Your task to perform on an android device: What's the weather going to be this weekend? Image 0: 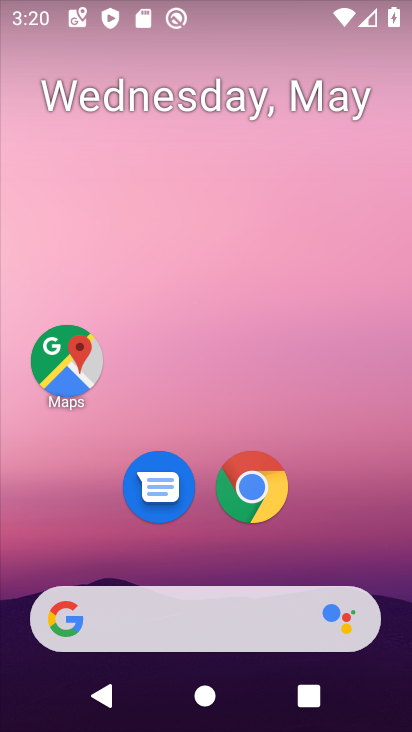
Step 0: drag from (327, 504) to (258, 40)
Your task to perform on an android device: What's the weather going to be this weekend? Image 1: 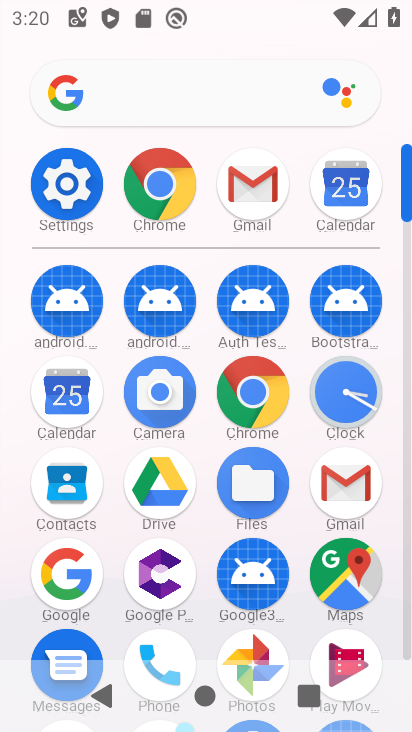
Step 1: drag from (6, 607) to (19, 297)
Your task to perform on an android device: What's the weather going to be this weekend? Image 2: 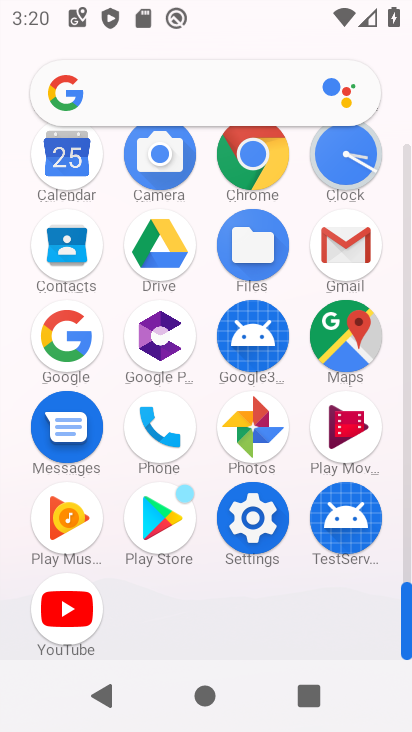
Step 2: drag from (15, 565) to (20, 289)
Your task to perform on an android device: What's the weather going to be this weekend? Image 3: 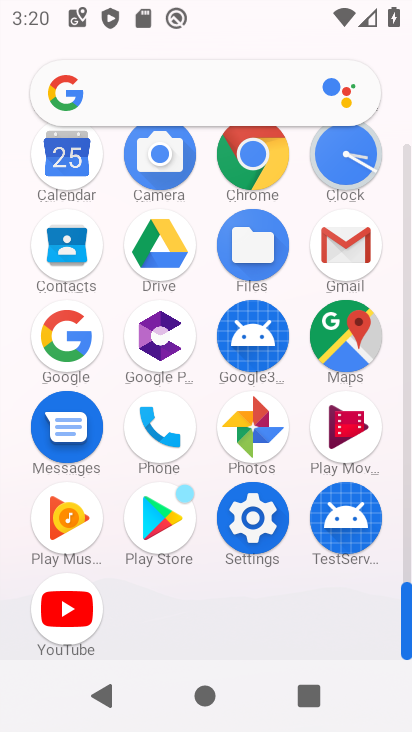
Step 3: drag from (18, 216) to (23, 514)
Your task to perform on an android device: What's the weather going to be this weekend? Image 4: 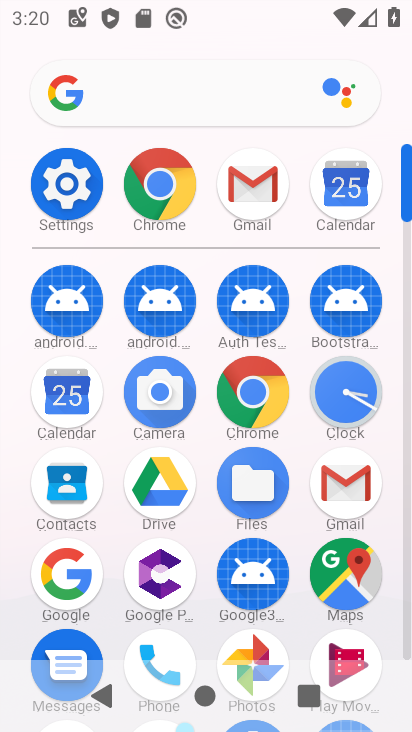
Step 4: drag from (12, 489) to (13, 211)
Your task to perform on an android device: What's the weather going to be this weekend? Image 5: 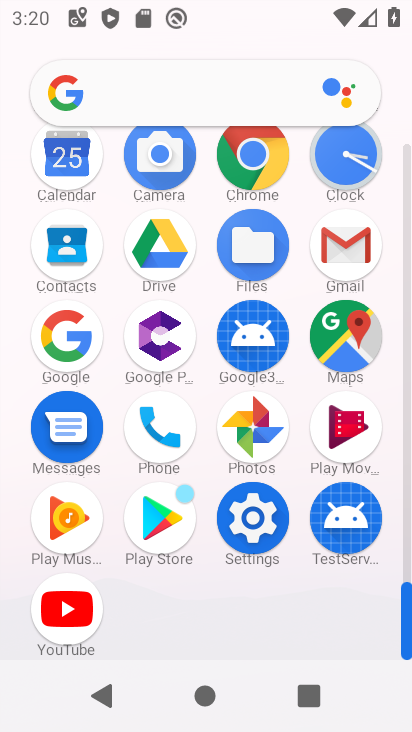
Step 5: click (250, 154)
Your task to perform on an android device: What's the weather going to be this weekend? Image 6: 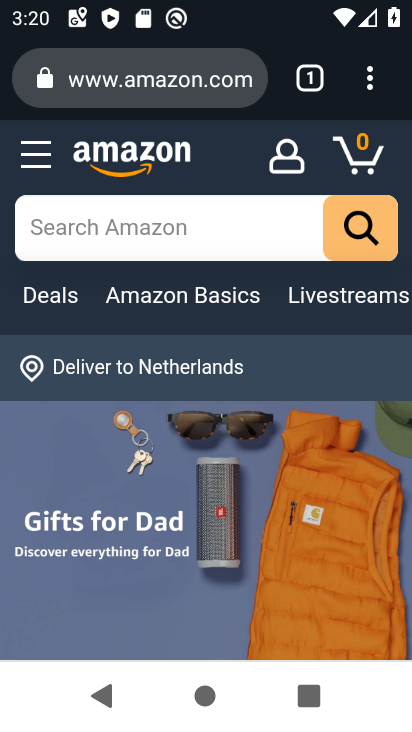
Step 6: click (165, 82)
Your task to perform on an android device: What's the weather going to be this weekend? Image 7: 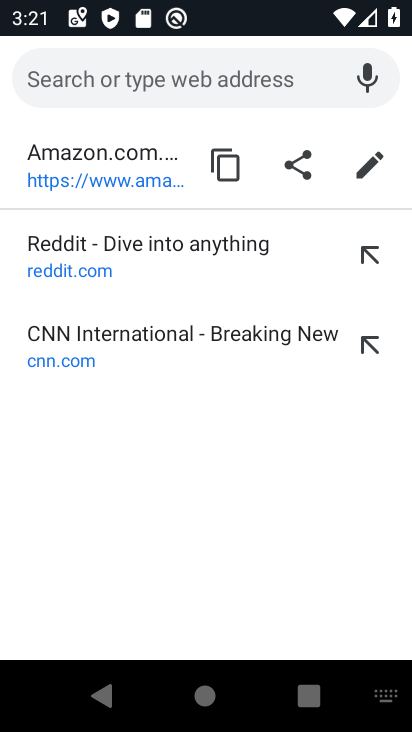
Step 7: type "What's the weather going to be this weekend?"
Your task to perform on an android device: What's the weather going to be this weekend? Image 8: 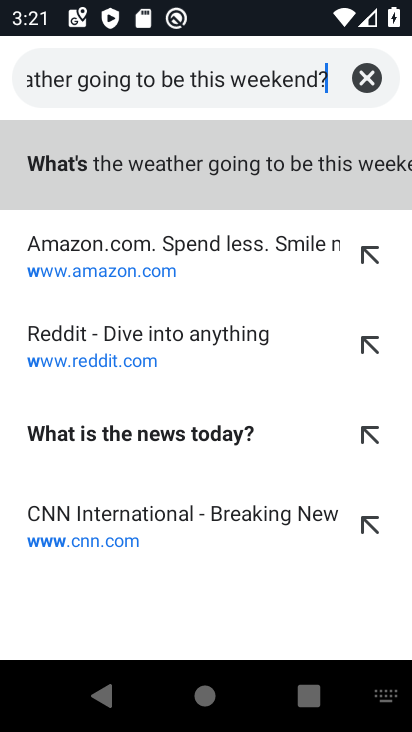
Step 8: type ""
Your task to perform on an android device: What's the weather going to be this weekend? Image 9: 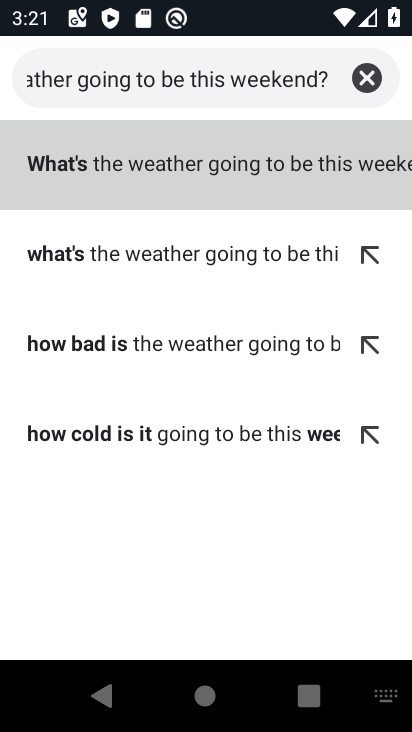
Step 9: click (104, 155)
Your task to perform on an android device: What's the weather going to be this weekend? Image 10: 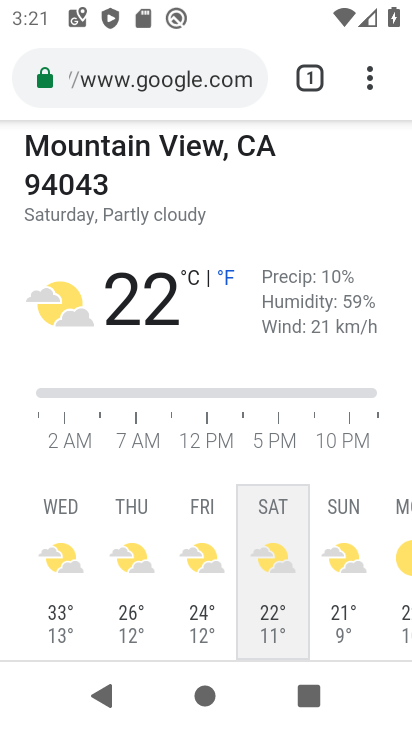
Step 10: task complete